Your task to perform on an android device: turn off notifications settings in the gmail app Image 0: 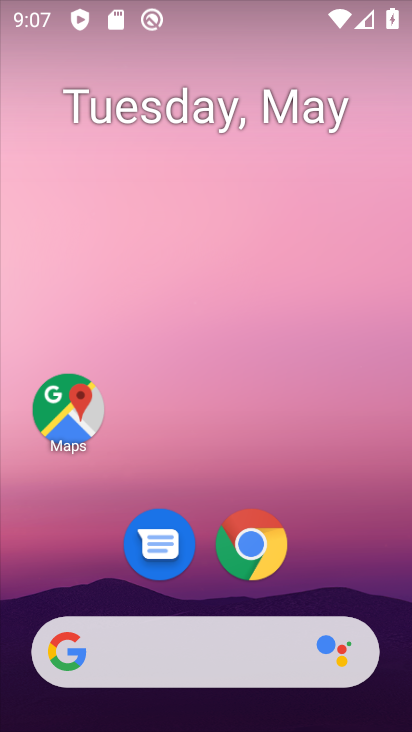
Step 0: drag from (316, 576) to (301, 238)
Your task to perform on an android device: turn off notifications settings in the gmail app Image 1: 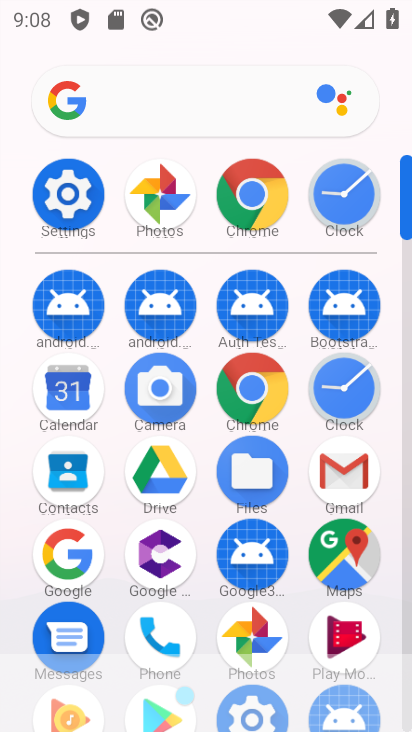
Step 1: click (340, 480)
Your task to perform on an android device: turn off notifications settings in the gmail app Image 2: 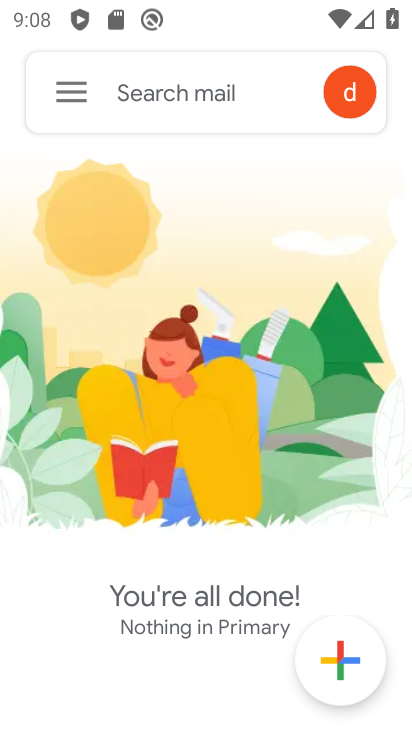
Step 2: click (69, 77)
Your task to perform on an android device: turn off notifications settings in the gmail app Image 3: 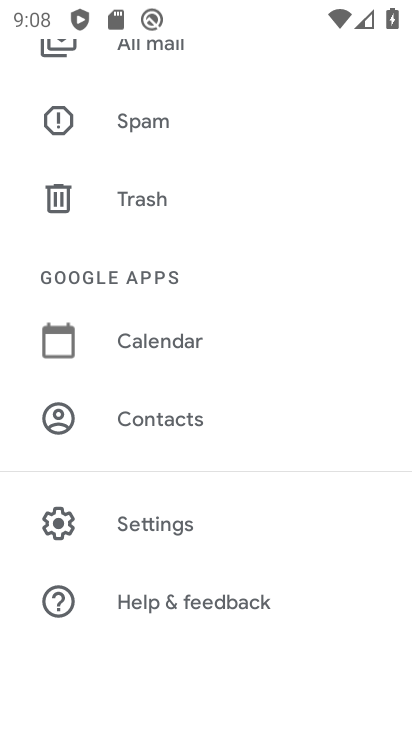
Step 3: click (114, 517)
Your task to perform on an android device: turn off notifications settings in the gmail app Image 4: 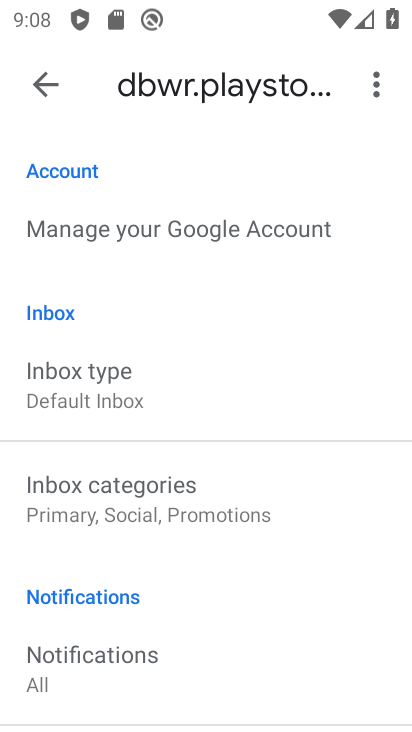
Step 4: click (149, 657)
Your task to perform on an android device: turn off notifications settings in the gmail app Image 5: 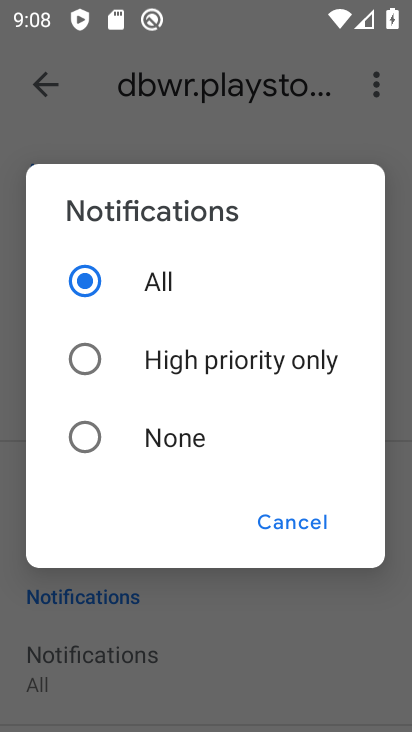
Step 5: click (85, 426)
Your task to perform on an android device: turn off notifications settings in the gmail app Image 6: 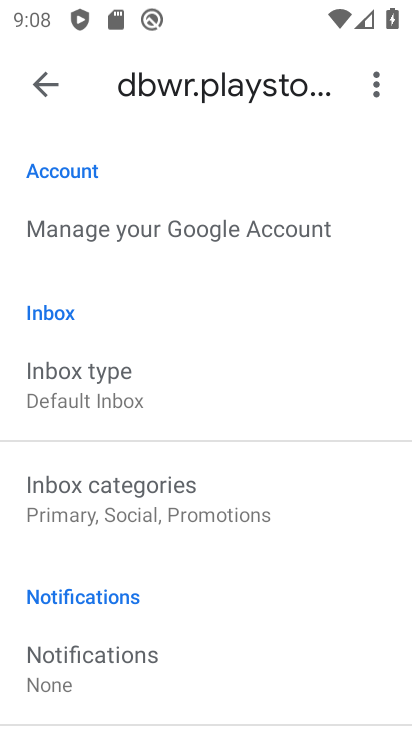
Step 6: task complete